Your task to perform on an android device: Open Android settings Image 0: 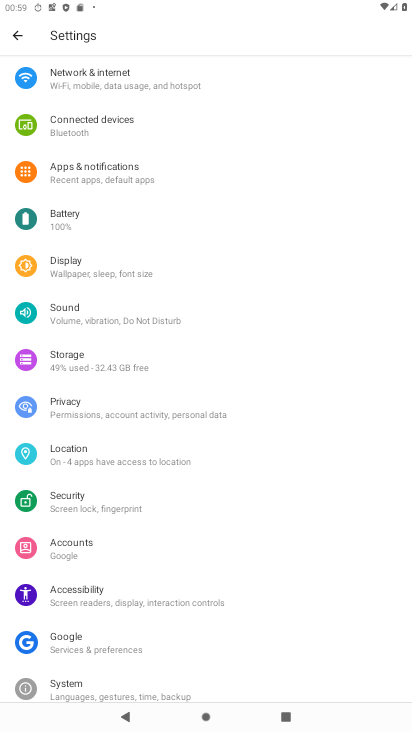
Step 0: task complete